Your task to perform on an android device: snooze an email in the gmail app Image 0: 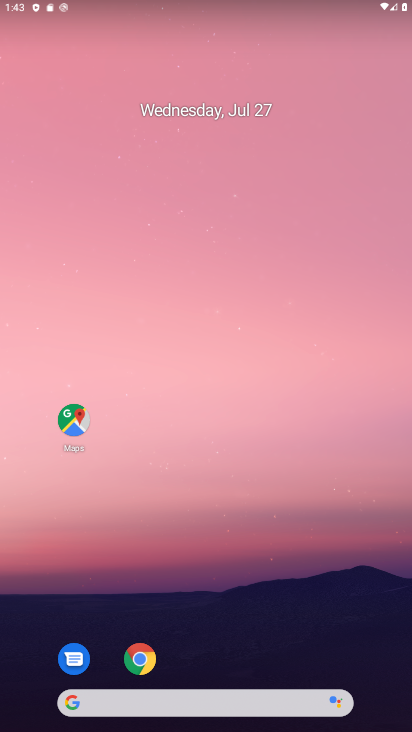
Step 0: drag from (248, 617) to (240, 72)
Your task to perform on an android device: snooze an email in the gmail app Image 1: 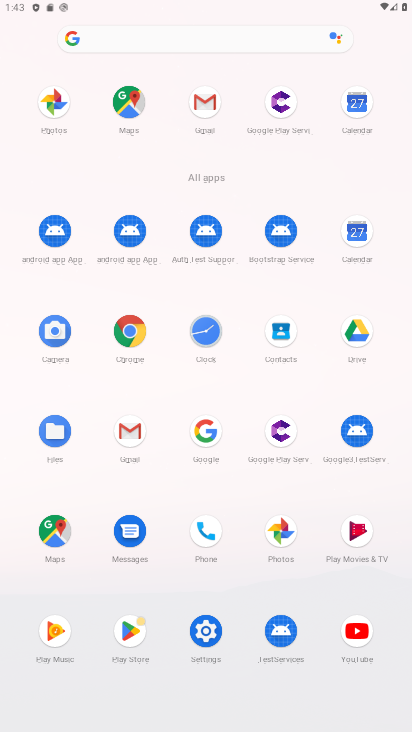
Step 1: click (125, 437)
Your task to perform on an android device: snooze an email in the gmail app Image 2: 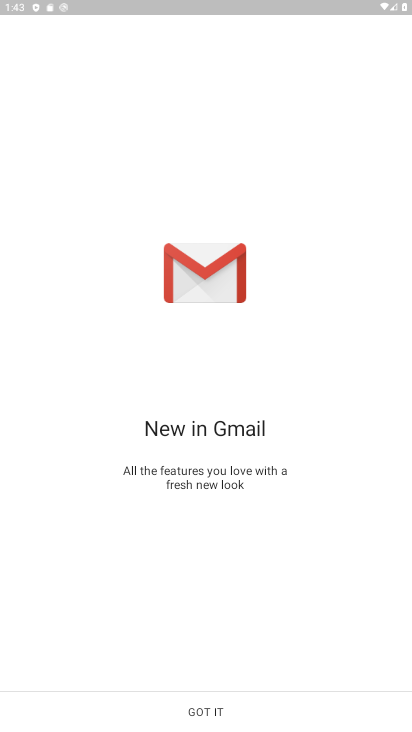
Step 2: click (206, 719)
Your task to perform on an android device: snooze an email in the gmail app Image 3: 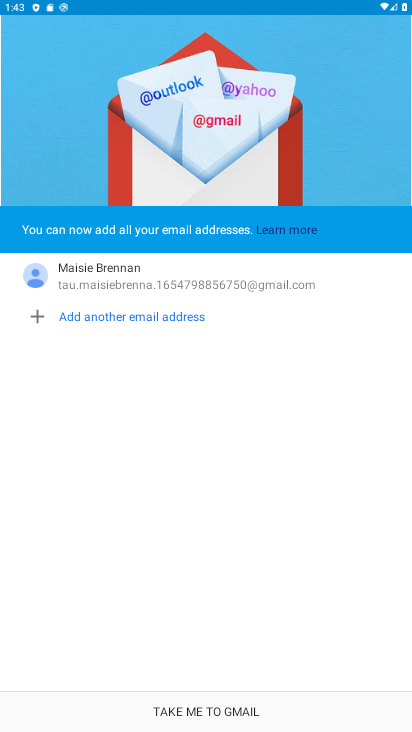
Step 3: click (215, 701)
Your task to perform on an android device: snooze an email in the gmail app Image 4: 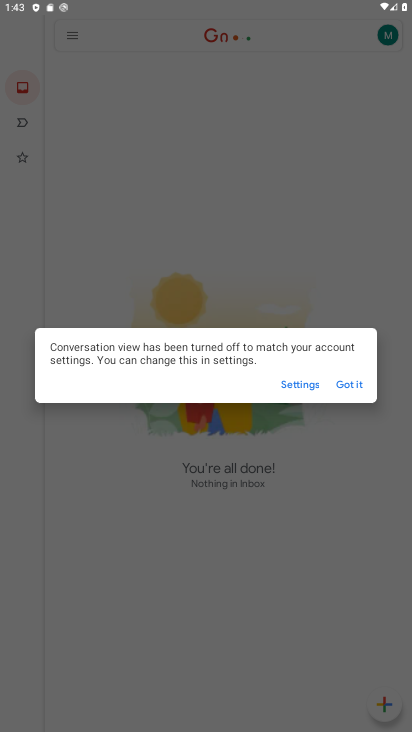
Step 4: click (347, 388)
Your task to perform on an android device: snooze an email in the gmail app Image 5: 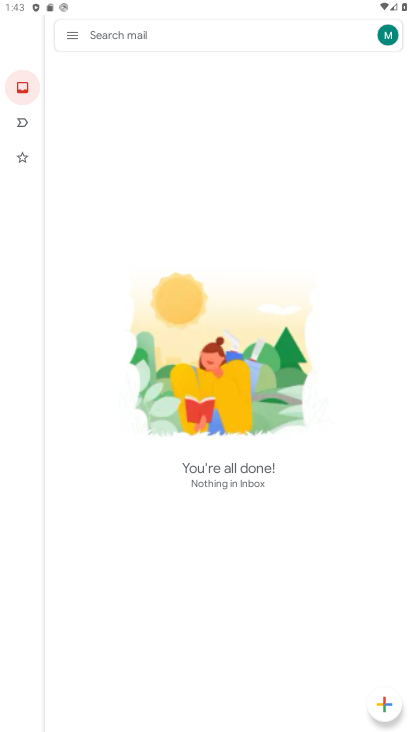
Step 5: click (70, 39)
Your task to perform on an android device: snooze an email in the gmail app Image 6: 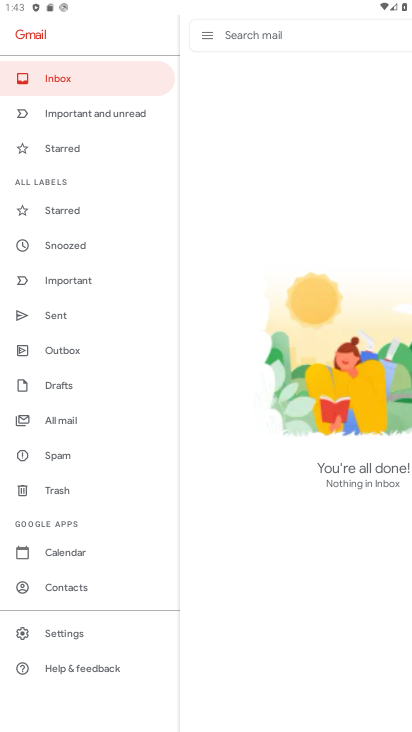
Step 6: click (56, 241)
Your task to perform on an android device: snooze an email in the gmail app Image 7: 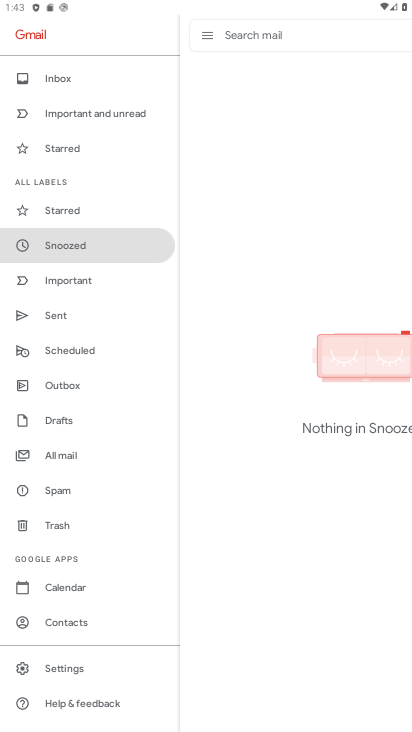
Step 7: click (56, 250)
Your task to perform on an android device: snooze an email in the gmail app Image 8: 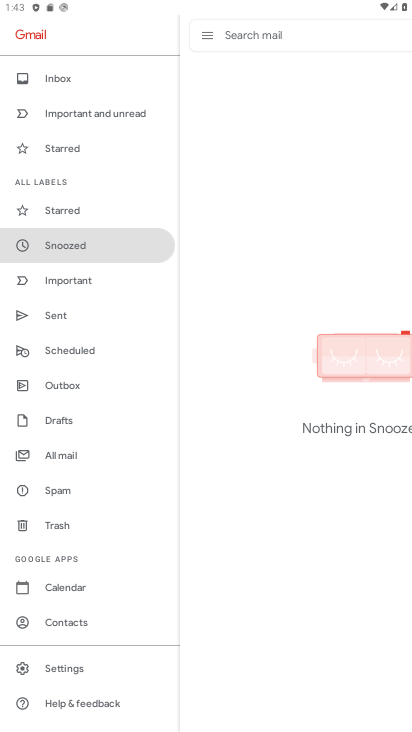
Step 8: task complete